Your task to perform on an android device: change timer sound Image 0: 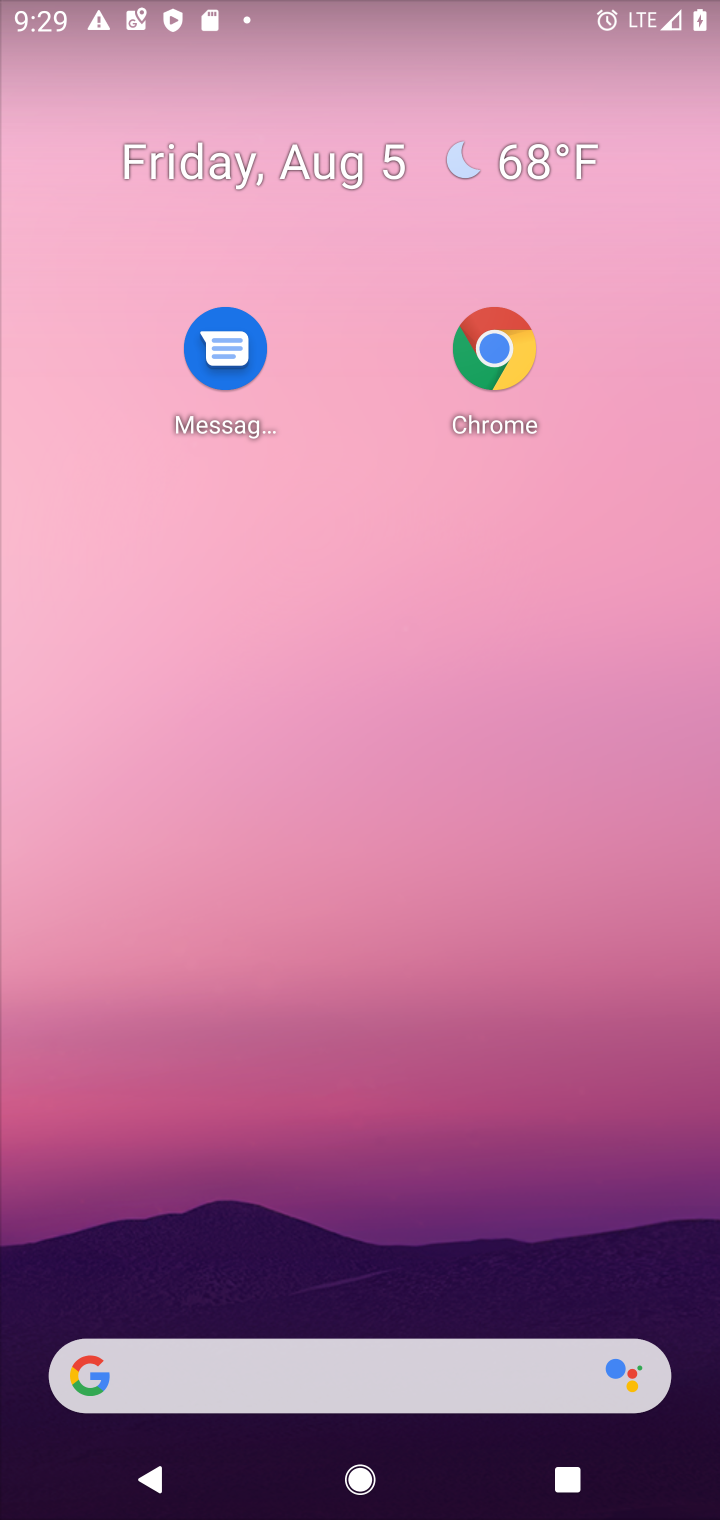
Step 0: press home button
Your task to perform on an android device: change timer sound Image 1: 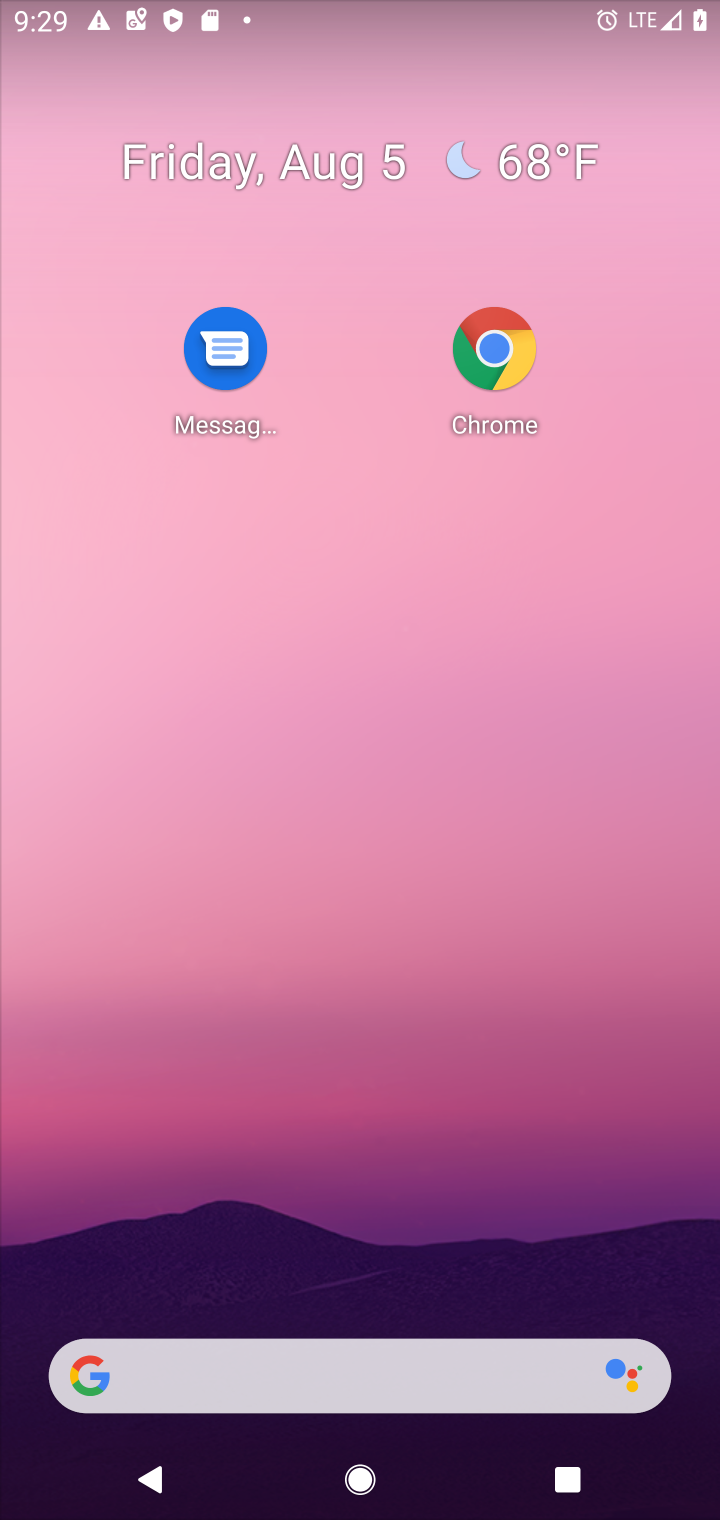
Step 1: drag from (488, 1417) to (307, 339)
Your task to perform on an android device: change timer sound Image 2: 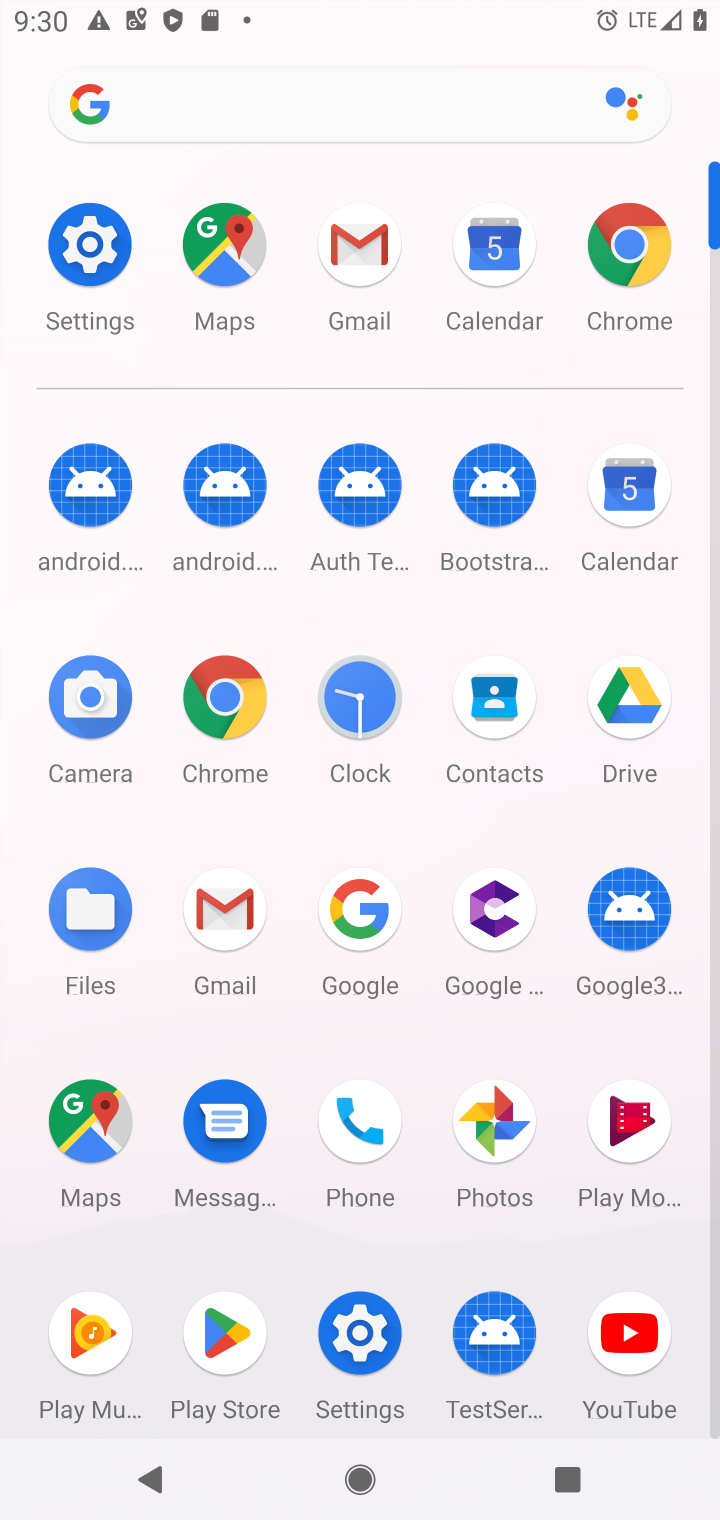
Step 2: click (98, 274)
Your task to perform on an android device: change timer sound Image 3: 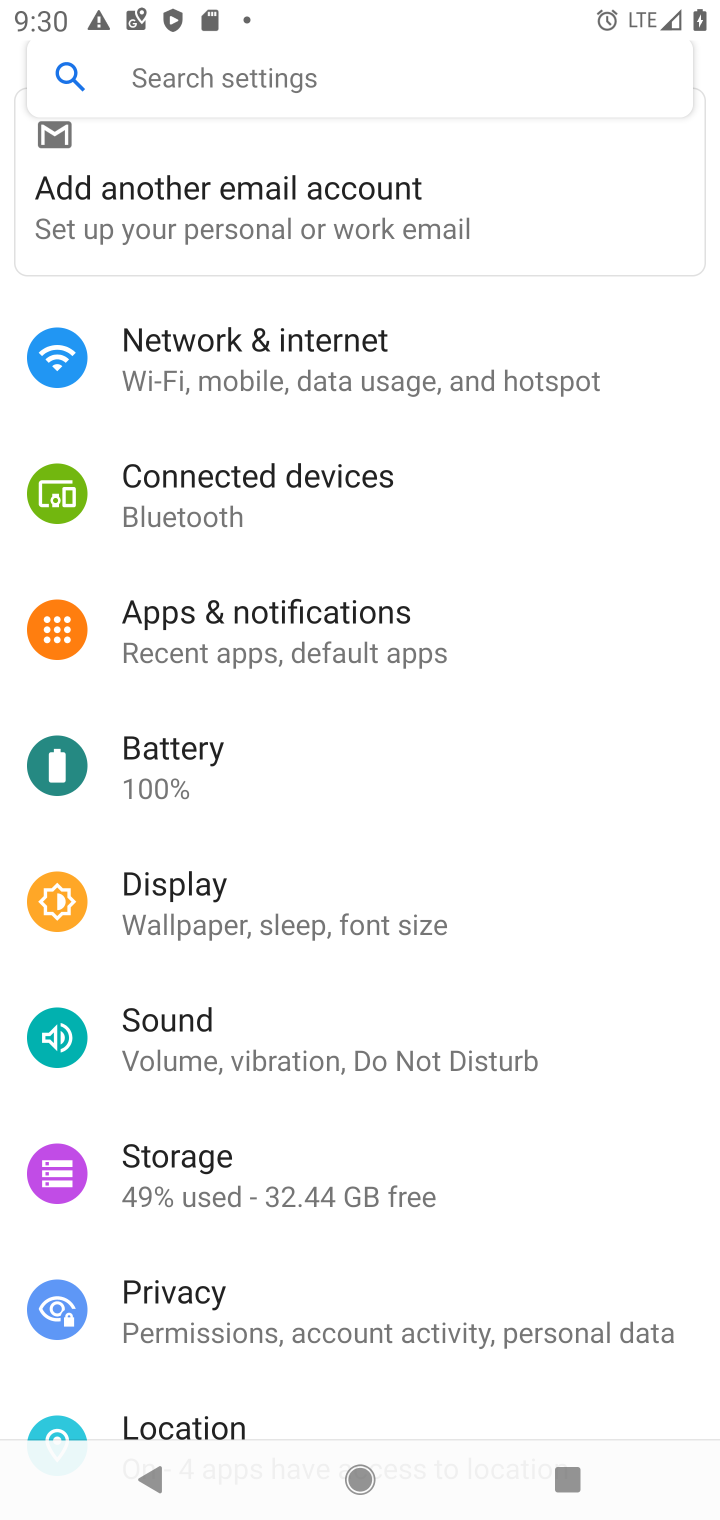
Step 3: press home button
Your task to perform on an android device: change timer sound Image 4: 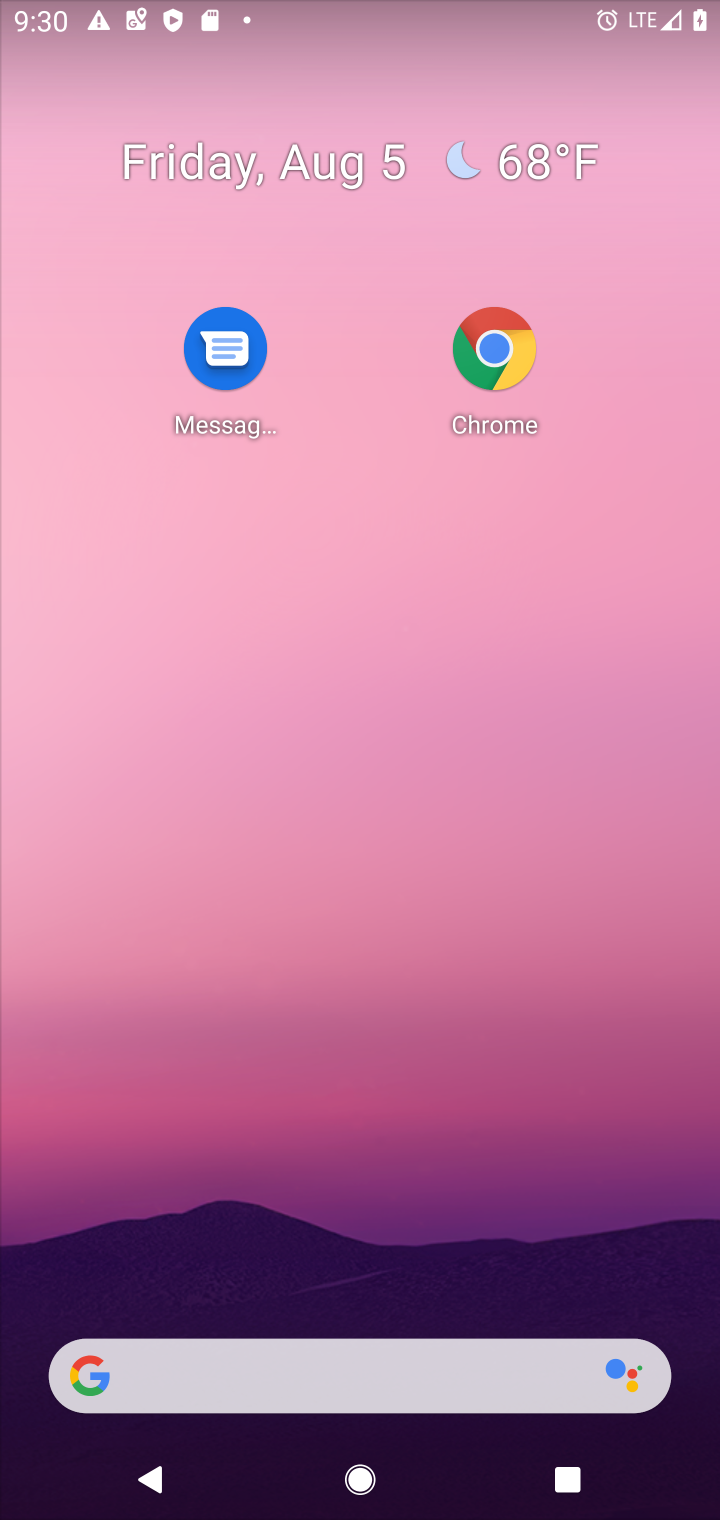
Step 4: drag from (501, 1179) to (408, 787)
Your task to perform on an android device: change timer sound Image 5: 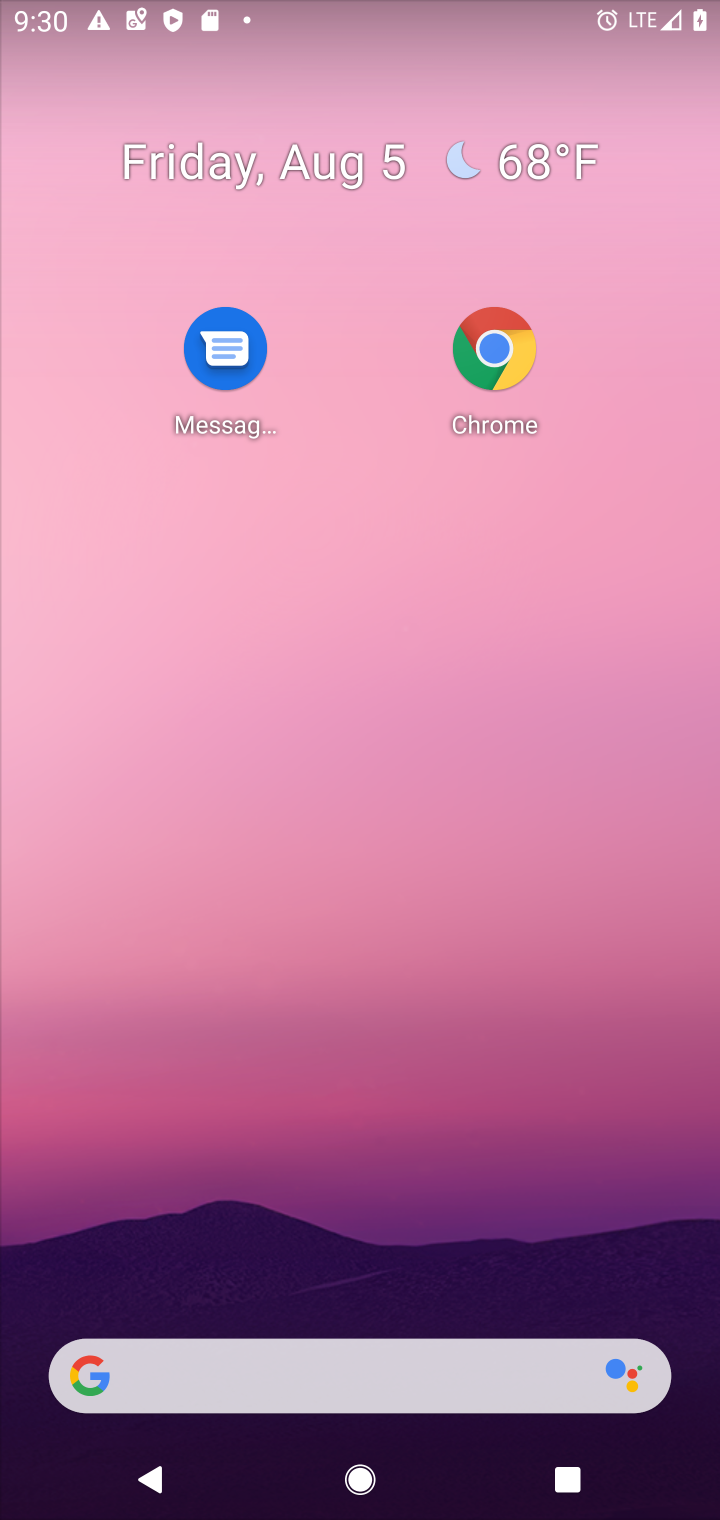
Step 5: drag from (444, 1409) to (230, 447)
Your task to perform on an android device: change timer sound Image 6: 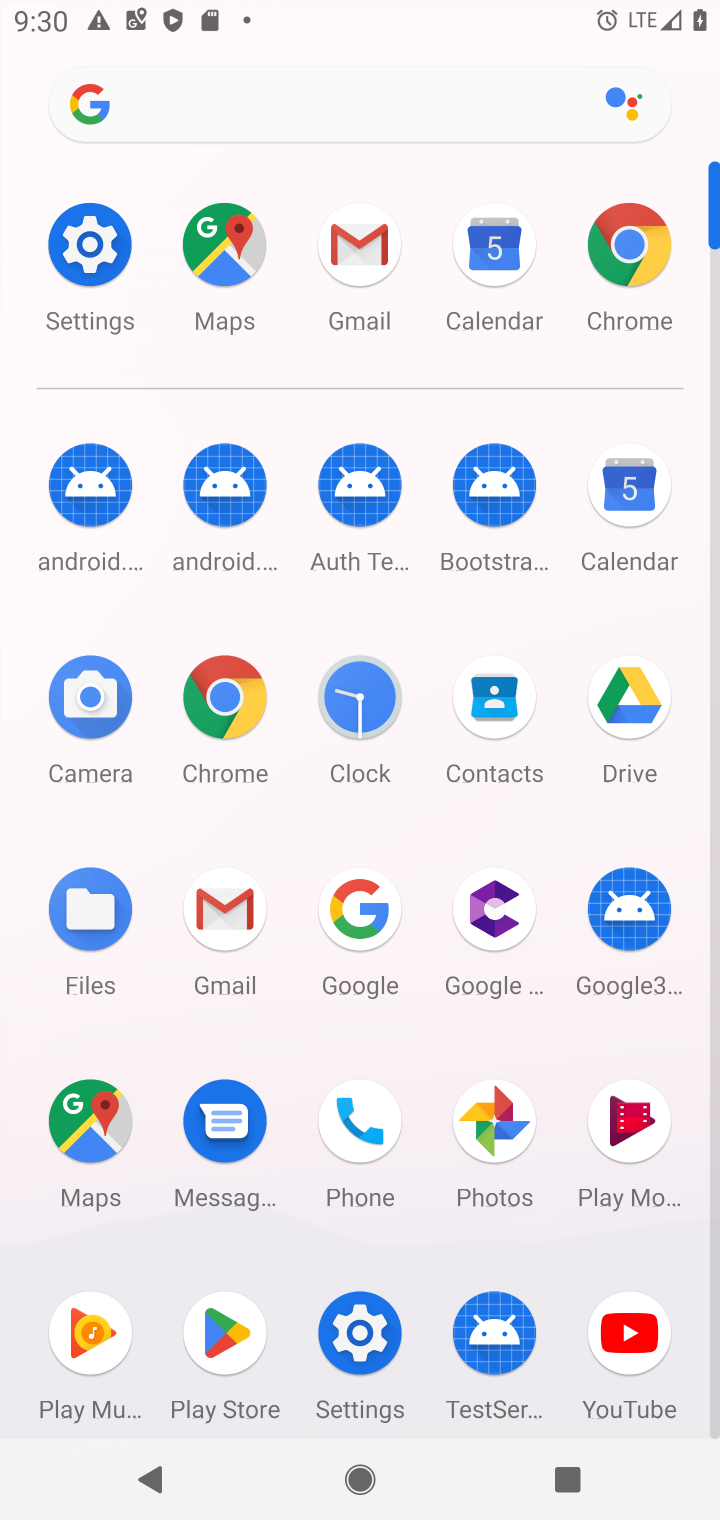
Step 6: click (352, 722)
Your task to perform on an android device: change timer sound Image 7: 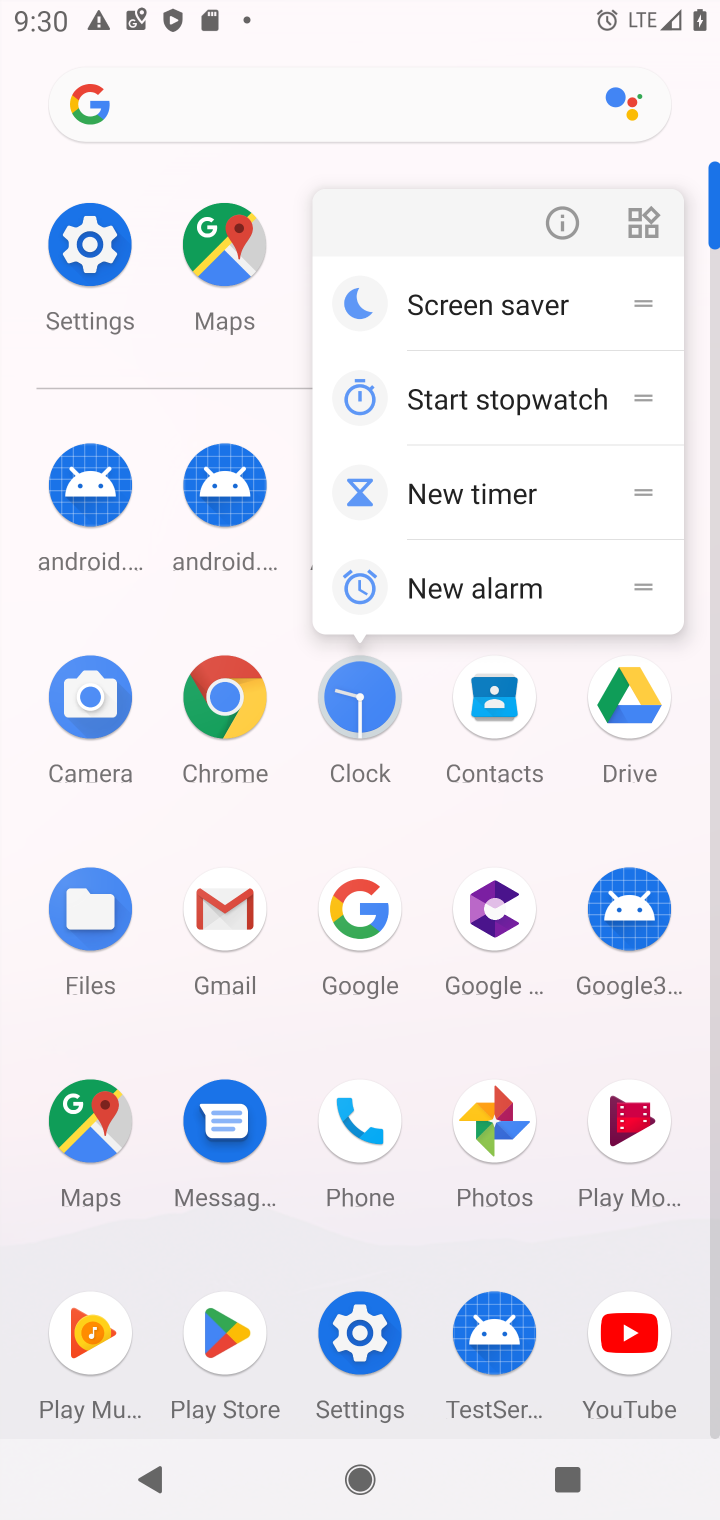
Step 7: click (370, 688)
Your task to perform on an android device: change timer sound Image 8: 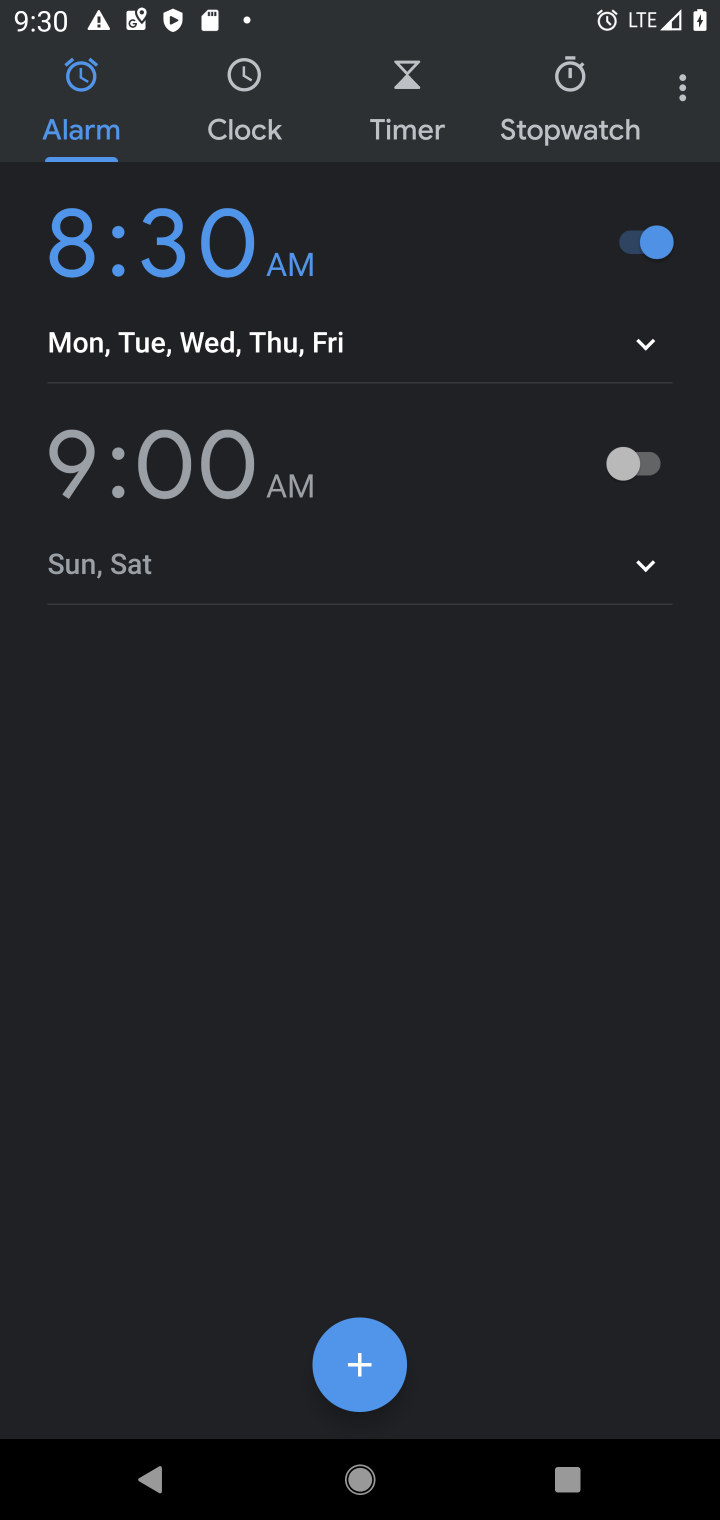
Step 8: click (698, 101)
Your task to perform on an android device: change timer sound Image 9: 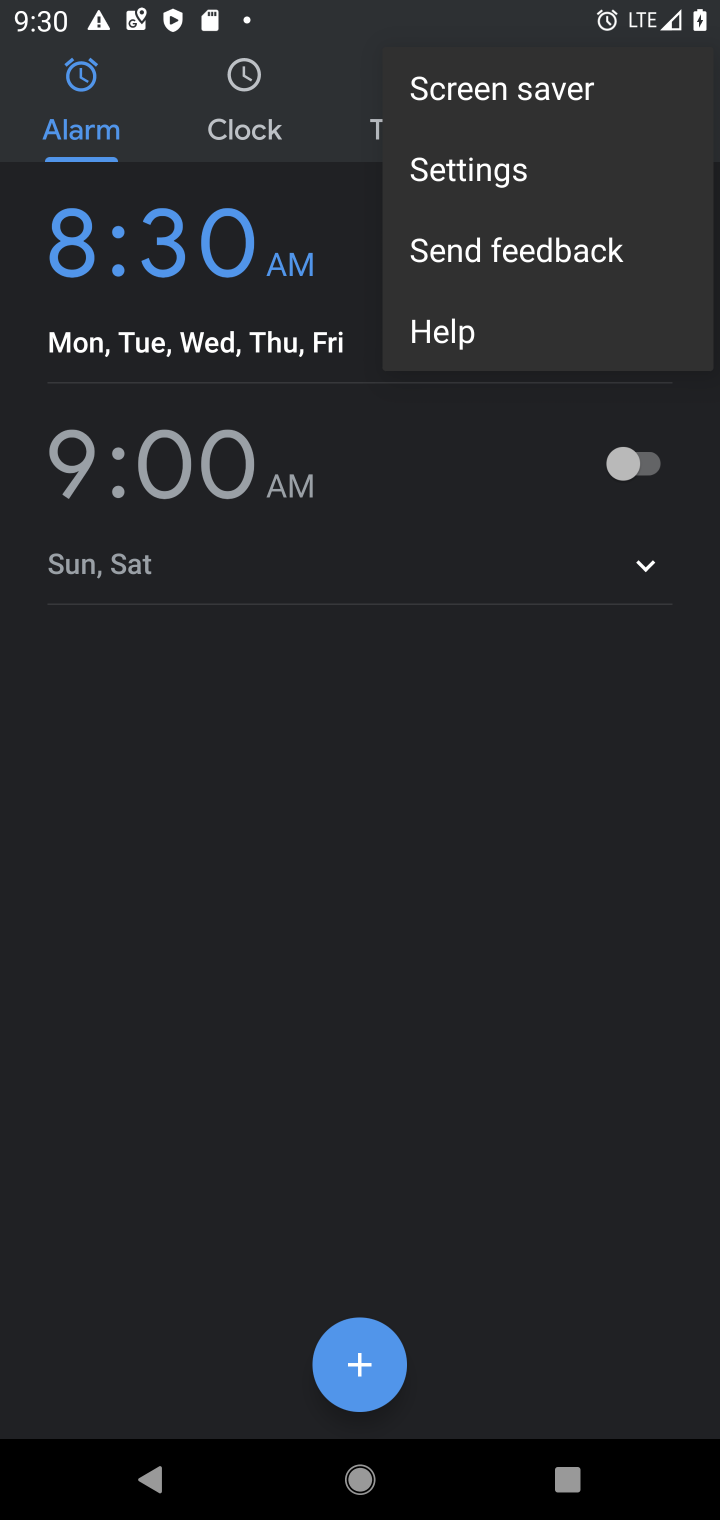
Step 9: click (486, 193)
Your task to perform on an android device: change timer sound Image 10: 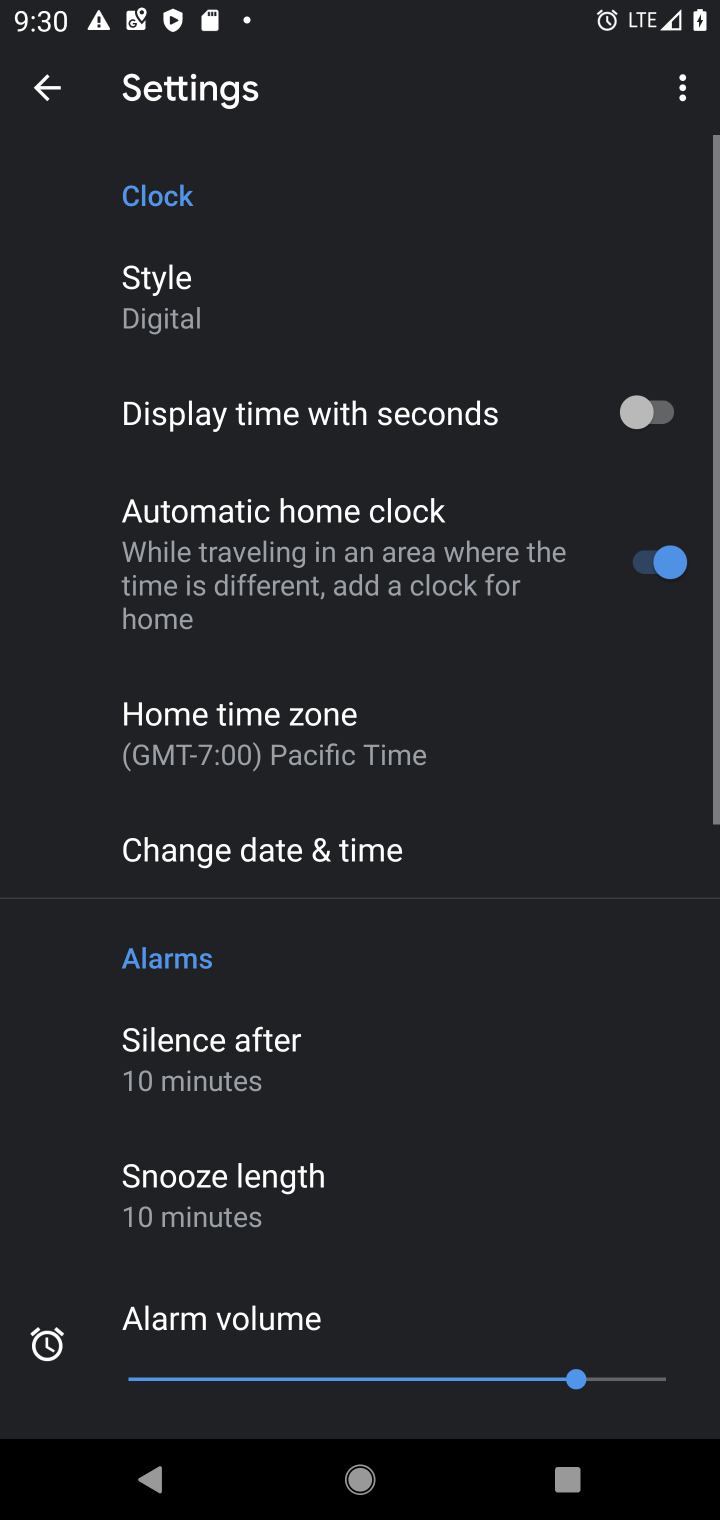
Step 10: drag from (383, 1167) to (385, 537)
Your task to perform on an android device: change timer sound Image 11: 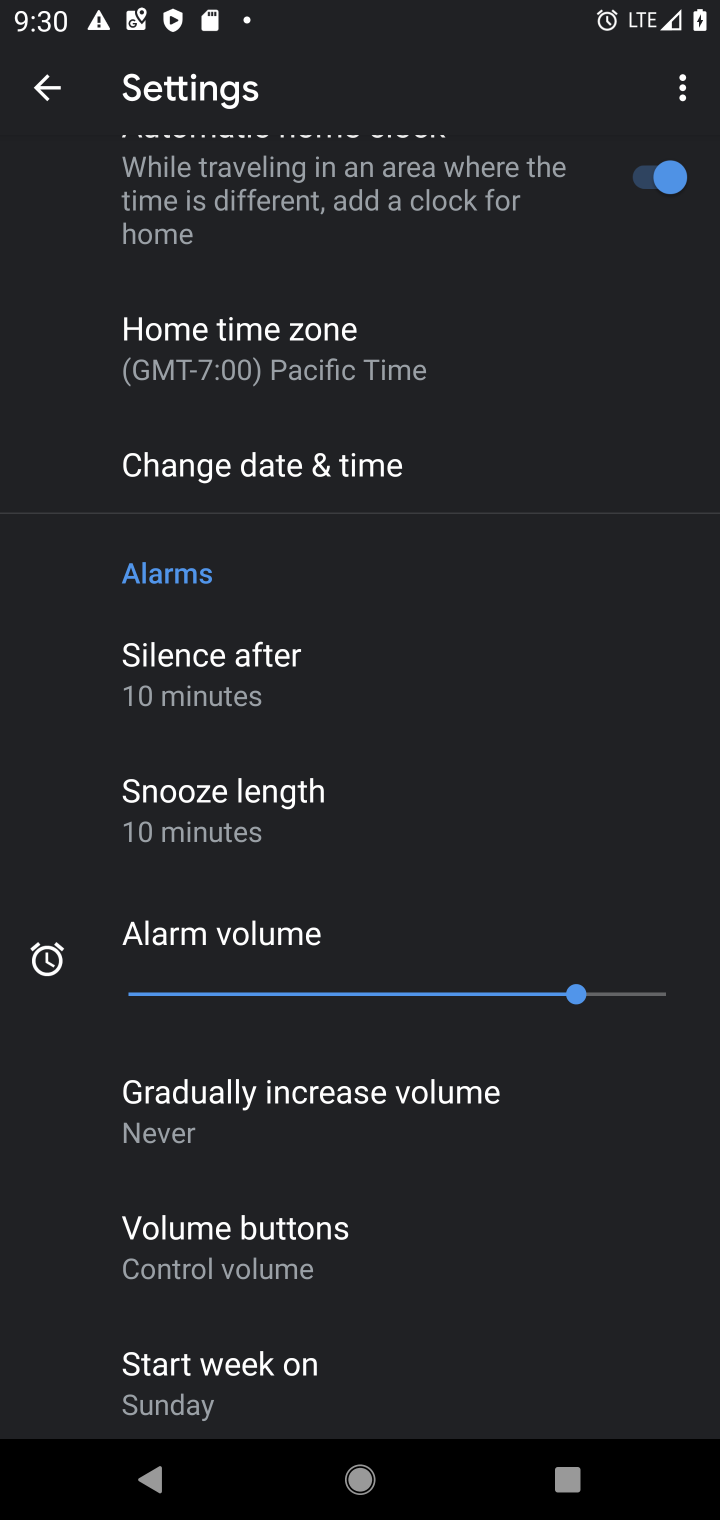
Step 11: drag from (323, 1131) to (267, 866)
Your task to perform on an android device: change timer sound Image 12: 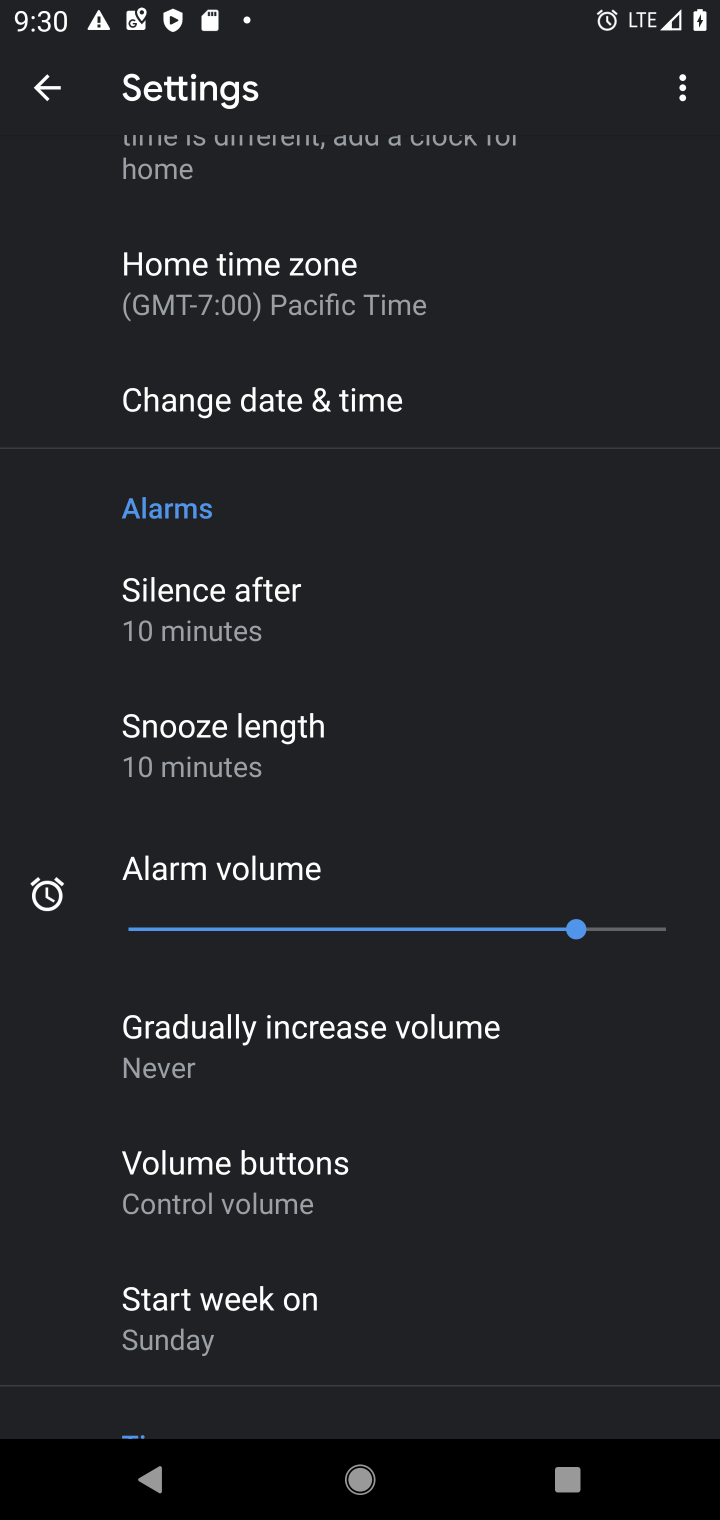
Step 12: drag from (273, 1328) to (212, 843)
Your task to perform on an android device: change timer sound Image 13: 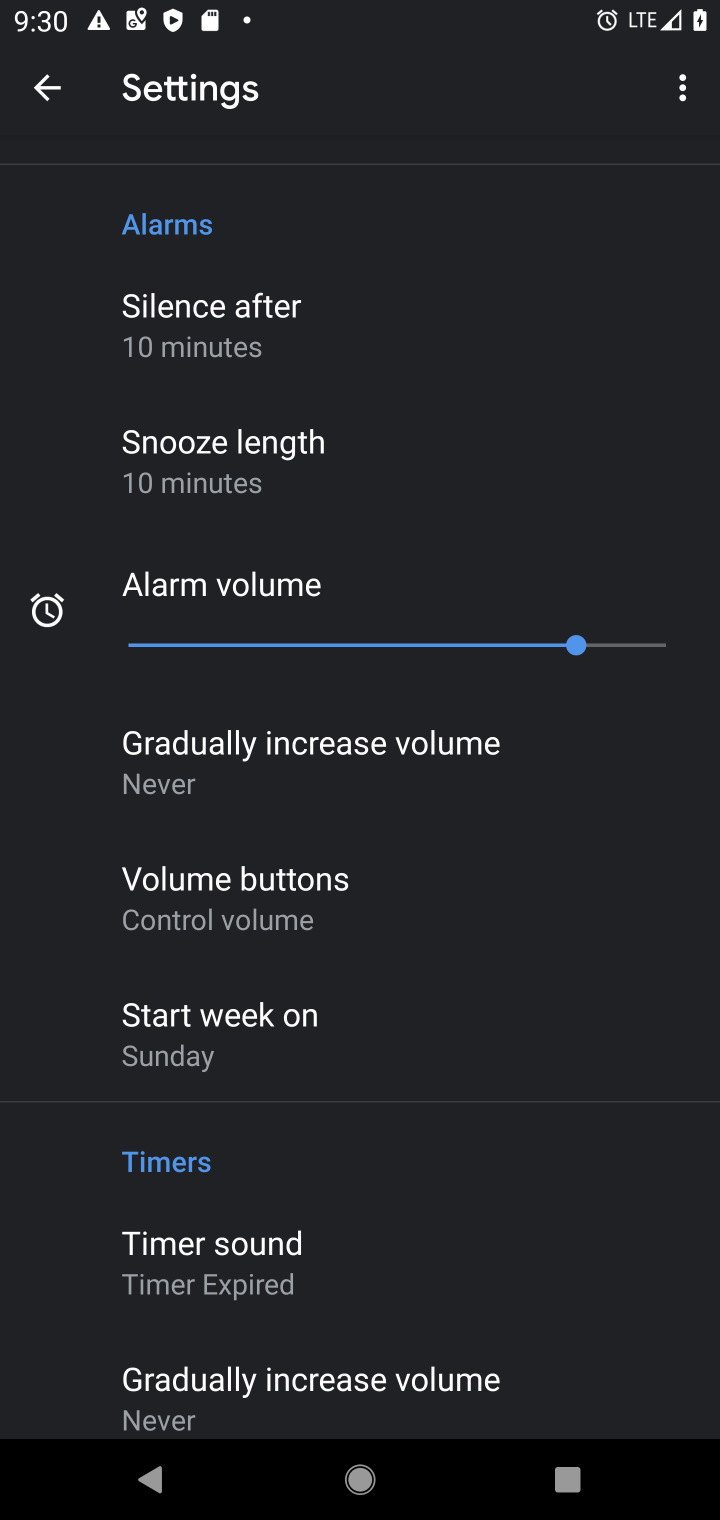
Step 13: click (335, 1258)
Your task to perform on an android device: change timer sound Image 14: 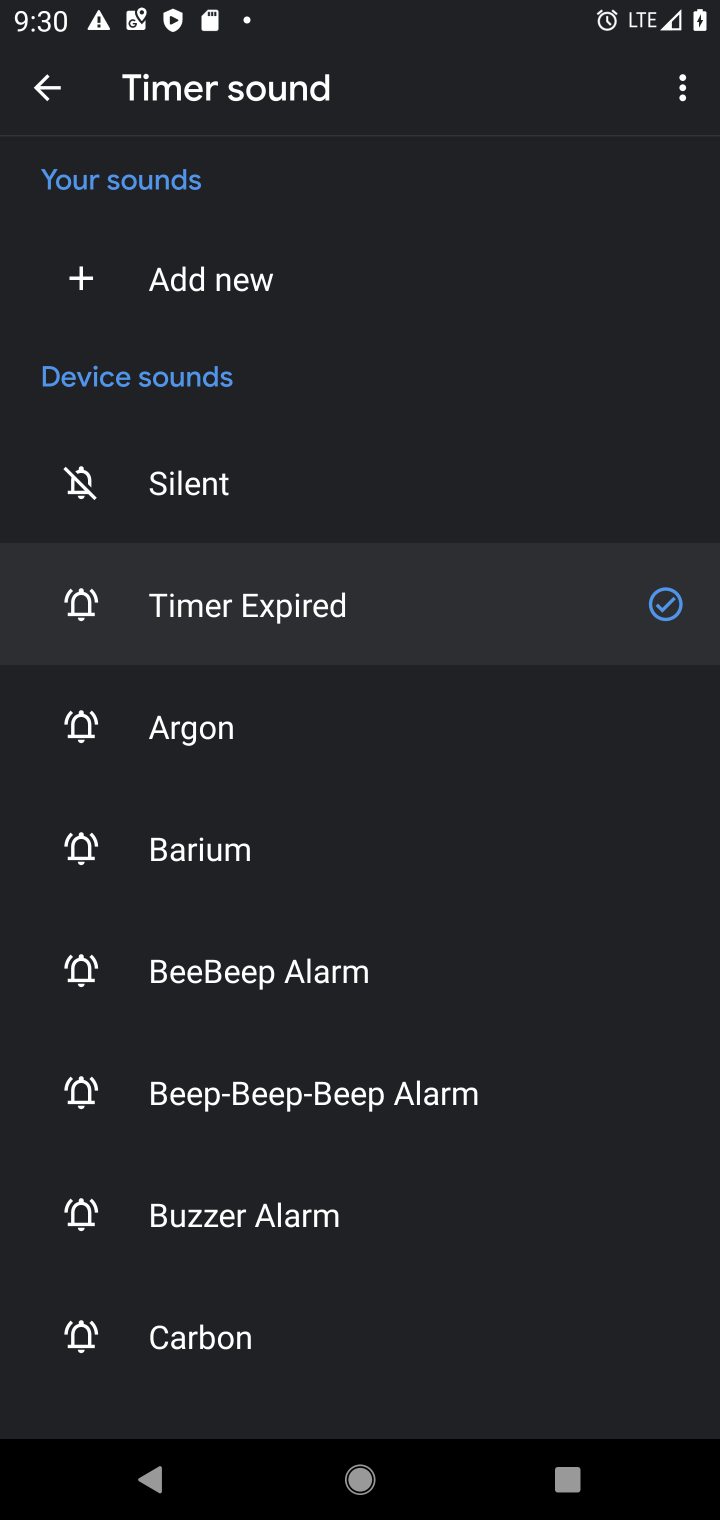
Step 14: click (267, 824)
Your task to perform on an android device: change timer sound Image 15: 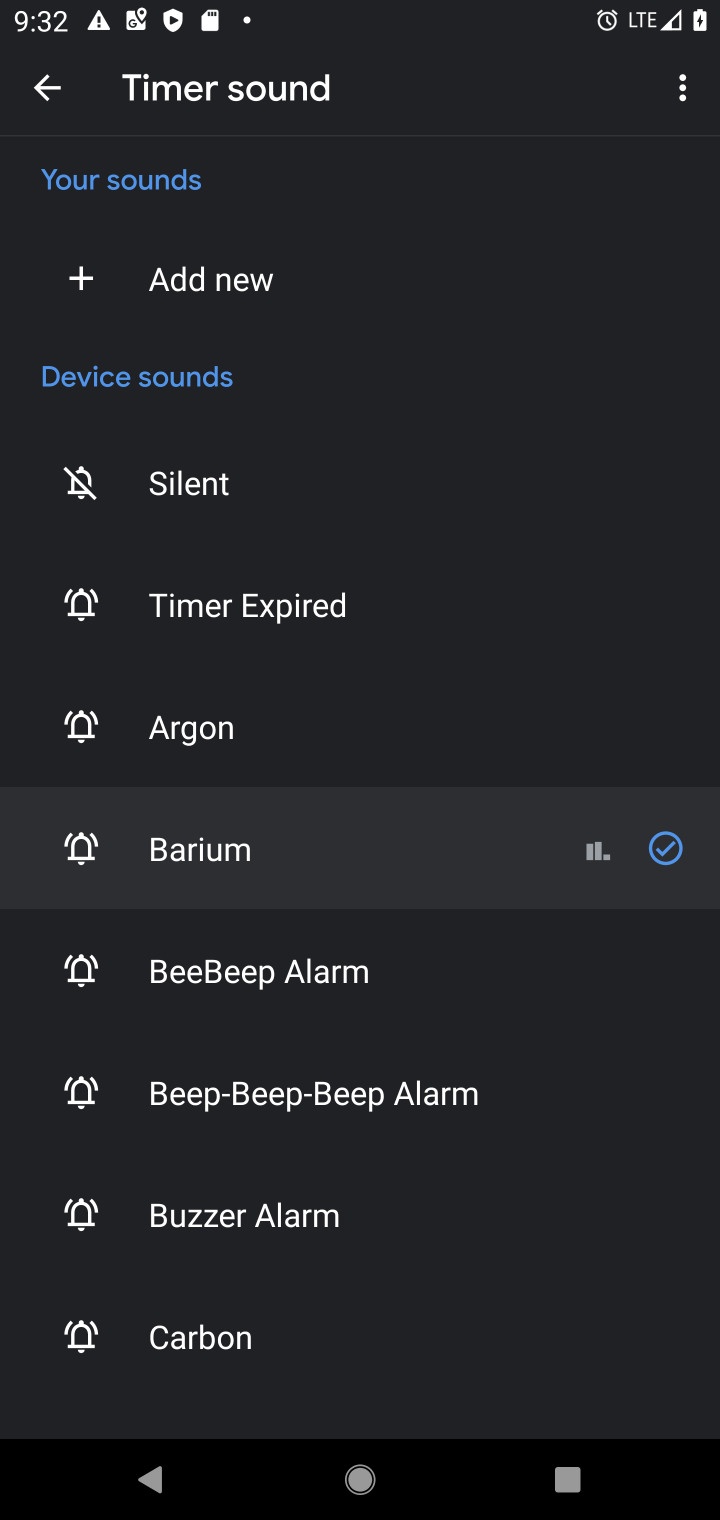
Step 15: task complete